Your task to perform on an android device: clear history in the chrome app Image 0: 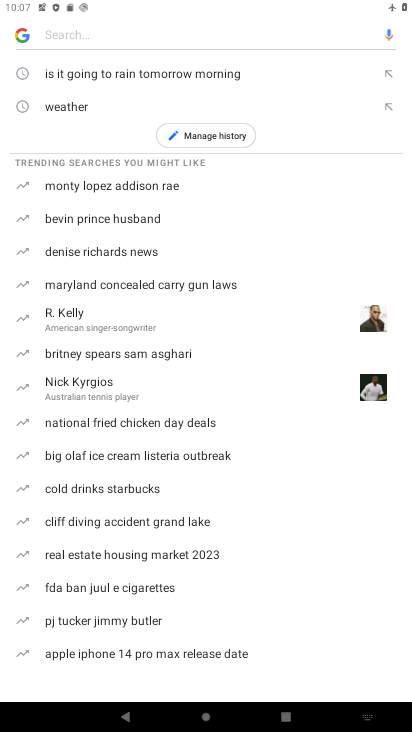
Step 0: press home button
Your task to perform on an android device: clear history in the chrome app Image 1: 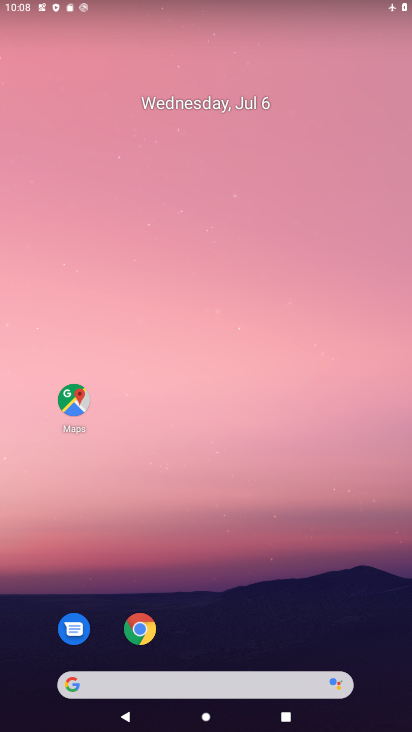
Step 1: click (134, 629)
Your task to perform on an android device: clear history in the chrome app Image 2: 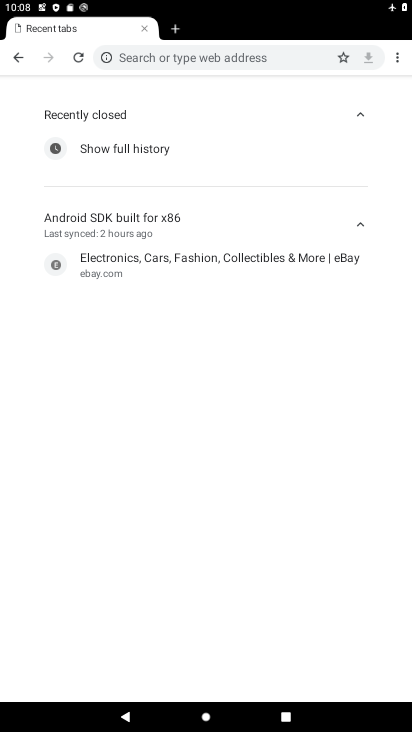
Step 2: drag from (392, 54) to (366, 365)
Your task to perform on an android device: clear history in the chrome app Image 3: 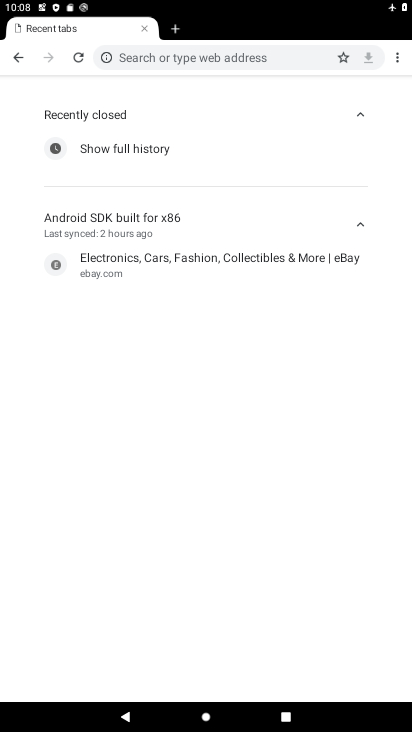
Step 3: click (393, 53)
Your task to perform on an android device: clear history in the chrome app Image 4: 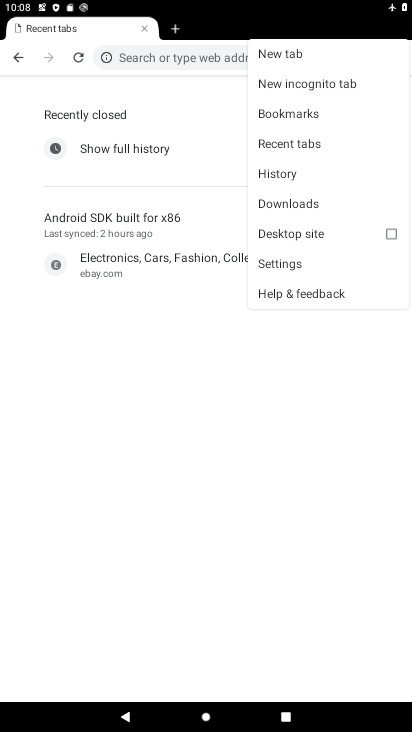
Step 4: click (301, 167)
Your task to perform on an android device: clear history in the chrome app Image 5: 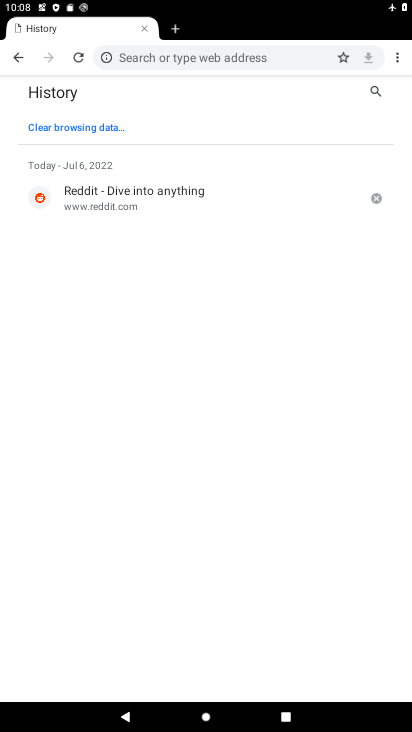
Step 5: click (87, 123)
Your task to perform on an android device: clear history in the chrome app Image 6: 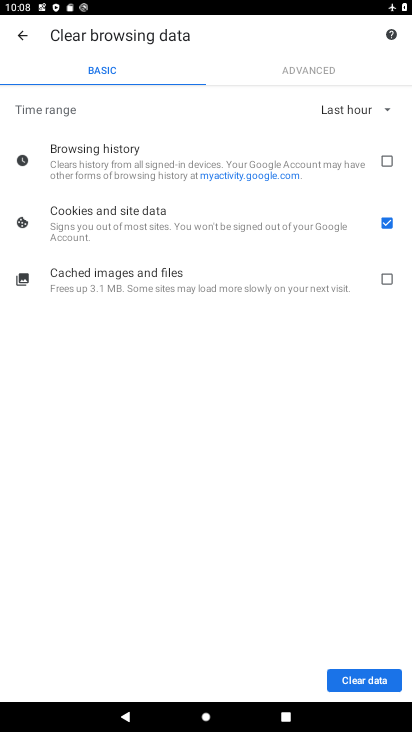
Step 6: click (385, 154)
Your task to perform on an android device: clear history in the chrome app Image 7: 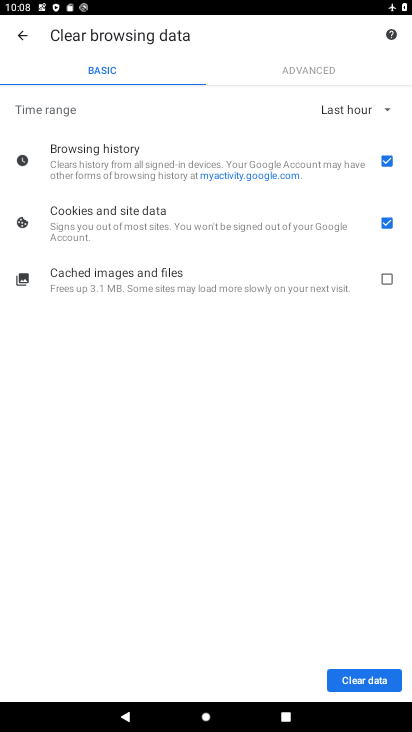
Step 7: click (383, 220)
Your task to perform on an android device: clear history in the chrome app Image 8: 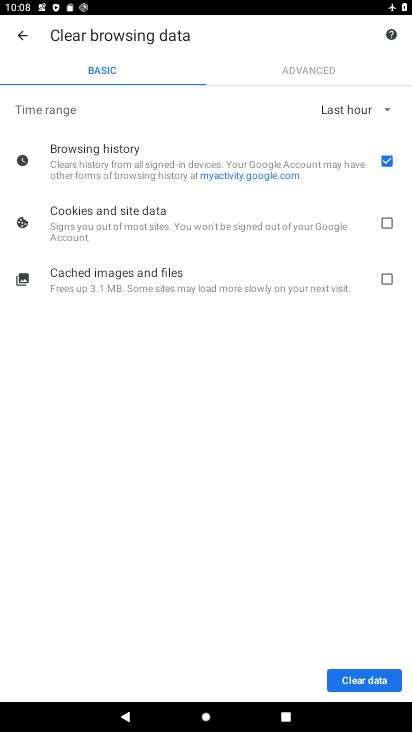
Step 8: click (352, 681)
Your task to perform on an android device: clear history in the chrome app Image 9: 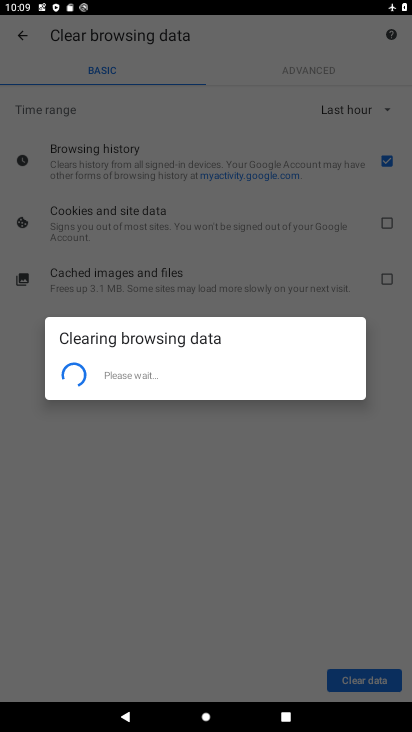
Step 9: task complete